Your task to perform on an android device: turn off priority inbox in the gmail app Image 0: 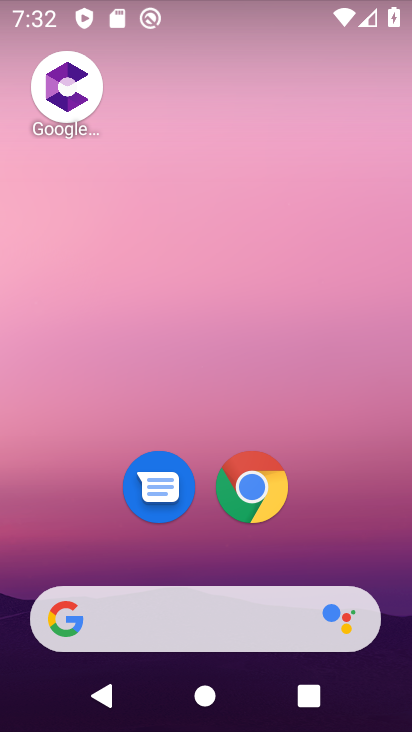
Step 0: drag from (364, 580) to (318, 13)
Your task to perform on an android device: turn off priority inbox in the gmail app Image 1: 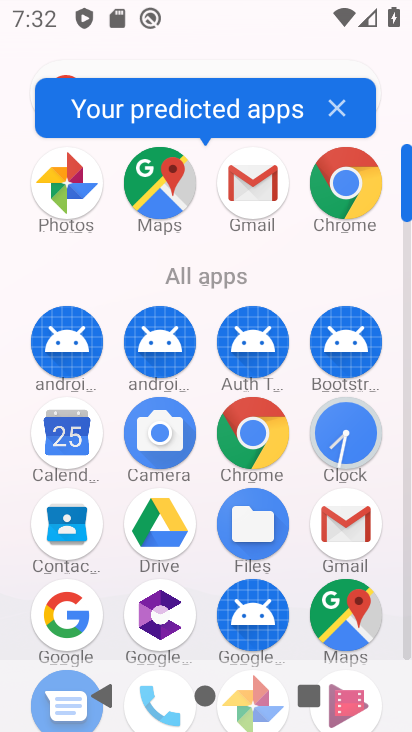
Step 1: click (248, 200)
Your task to perform on an android device: turn off priority inbox in the gmail app Image 2: 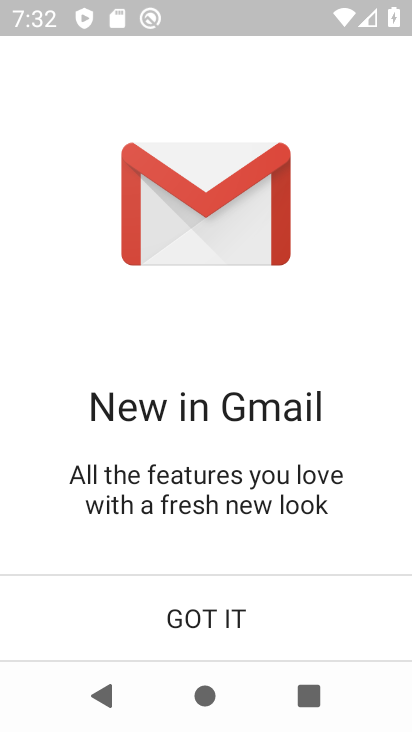
Step 2: click (206, 617)
Your task to perform on an android device: turn off priority inbox in the gmail app Image 3: 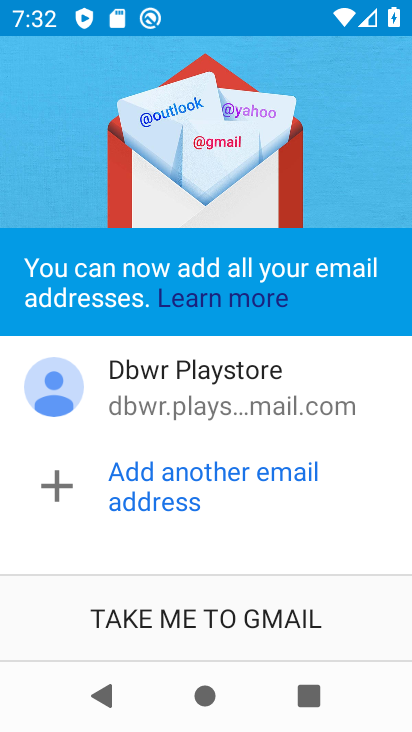
Step 3: click (206, 617)
Your task to perform on an android device: turn off priority inbox in the gmail app Image 4: 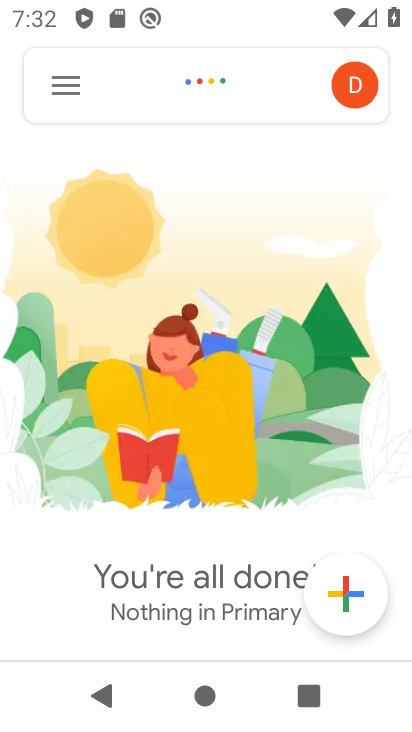
Step 4: click (63, 82)
Your task to perform on an android device: turn off priority inbox in the gmail app Image 5: 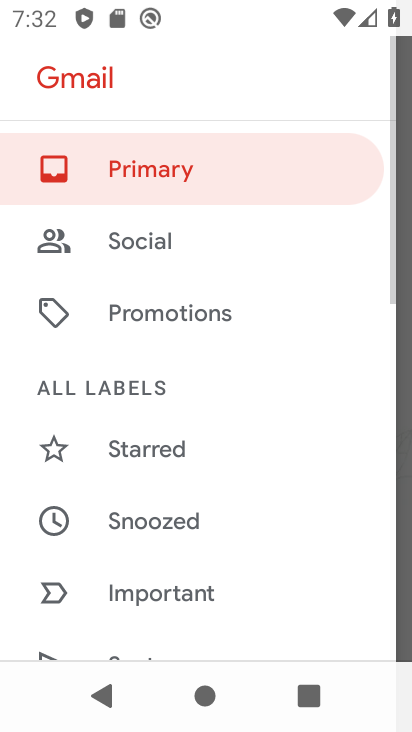
Step 5: drag from (236, 580) to (204, 137)
Your task to perform on an android device: turn off priority inbox in the gmail app Image 6: 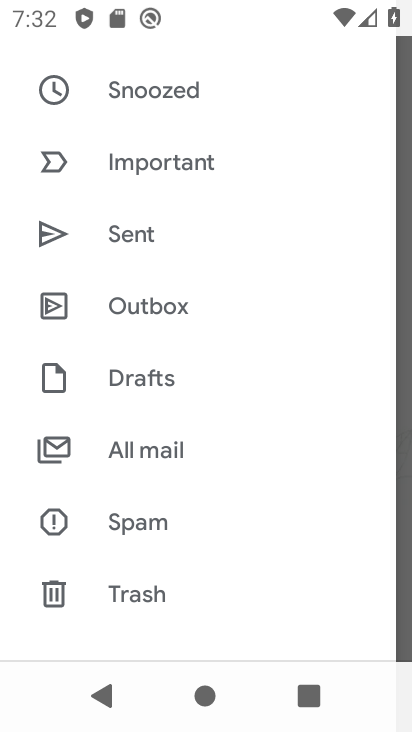
Step 6: drag from (197, 546) to (170, 110)
Your task to perform on an android device: turn off priority inbox in the gmail app Image 7: 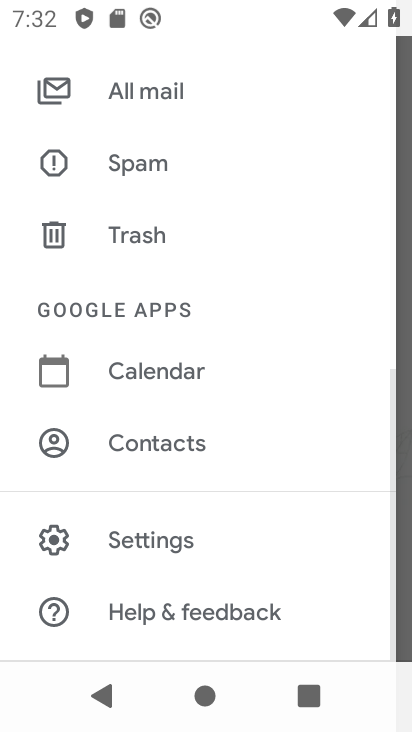
Step 7: click (149, 539)
Your task to perform on an android device: turn off priority inbox in the gmail app Image 8: 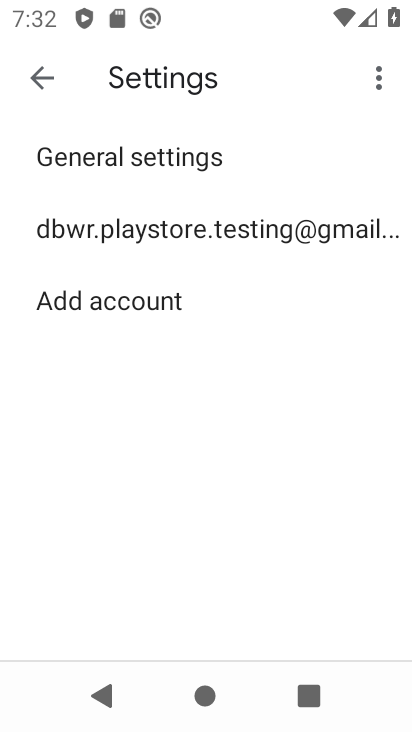
Step 8: click (140, 231)
Your task to perform on an android device: turn off priority inbox in the gmail app Image 9: 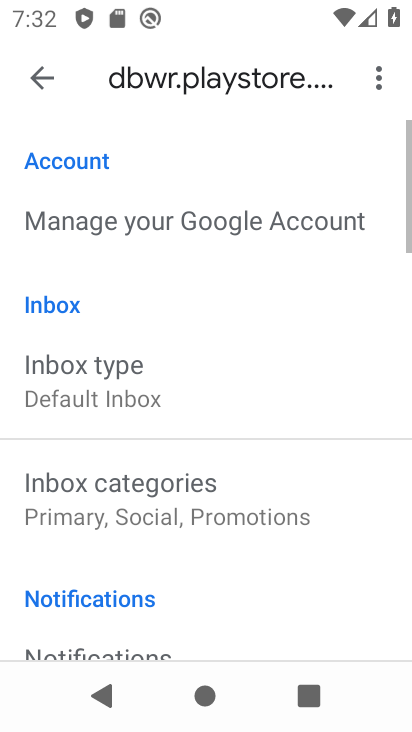
Step 9: click (97, 408)
Your task to perform on an android device: turn off priority inbox in the gmail app Image 10: 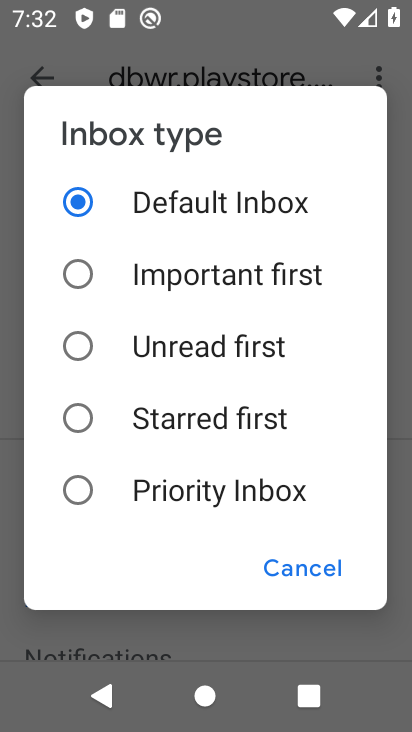
Step 10: task complete